Your task to perform on an android device: Go to settings Image 0: 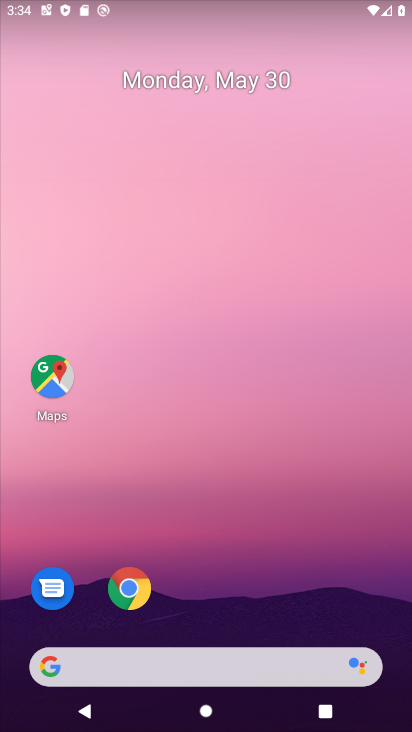
Step 0: drag from (211, 519) to (157, 77)
Your task to perform on an android device: Go to settings Image 1: 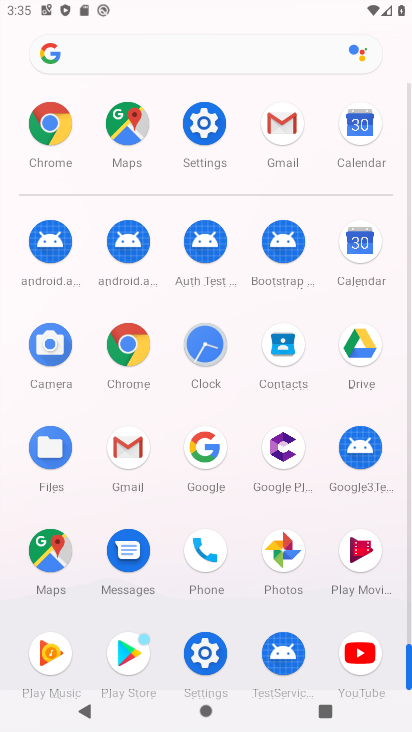
Step 1: drag from (19, 586) to (12, 329)
Your task to perform on an android device: Go to settings Image 2: 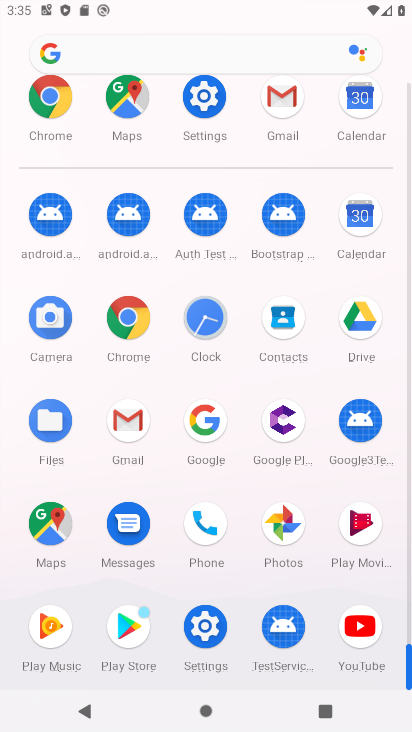
Step 2: click (207, 617)
Your task to perform on an android device: Go to settings Image 3: 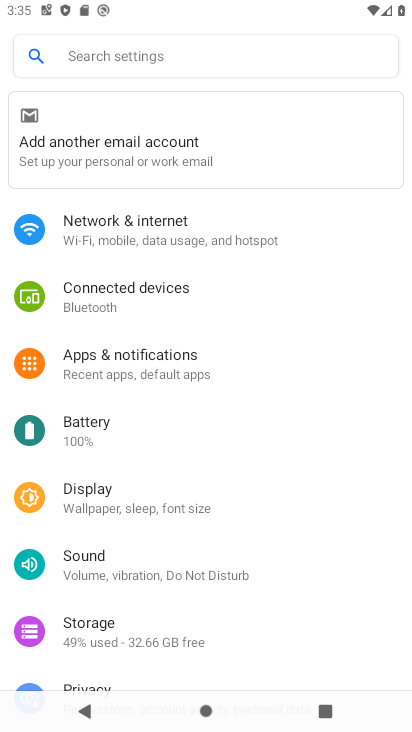
Step 3: task complete